Your task to perform on an android device: toggle sleep mode Image 0: 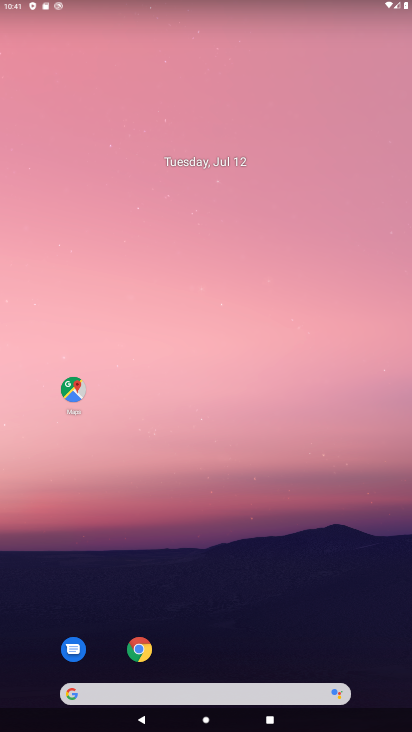
Step 0: drag from (282, 633) to (194, 56)
Your task to perform on an android device: toggle sleep mode Image 1: 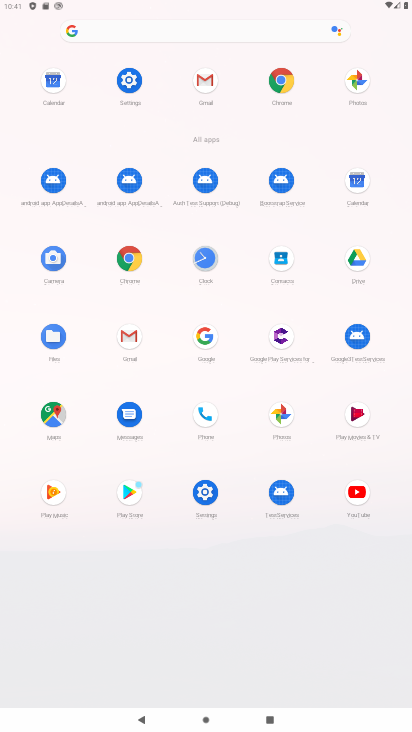
Step 1: click (126, 79)
Your task to perform on an android device: toggle sleep mode Image 2: 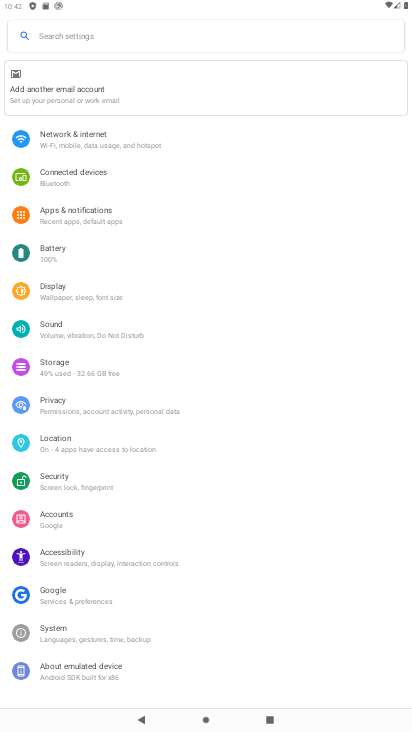
Step 2: click (80, 298)
Your task to perform on an android device: toggle sleep mode Image 3: 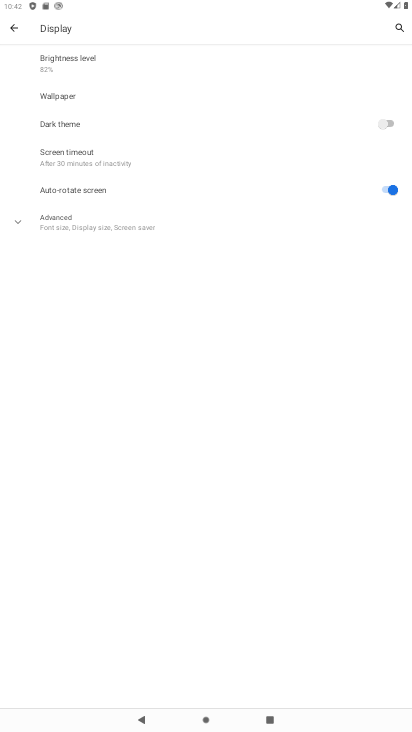
Step 3: click (253, 217)
Your task to perform on an android device: toggle sleep mode Image 4: 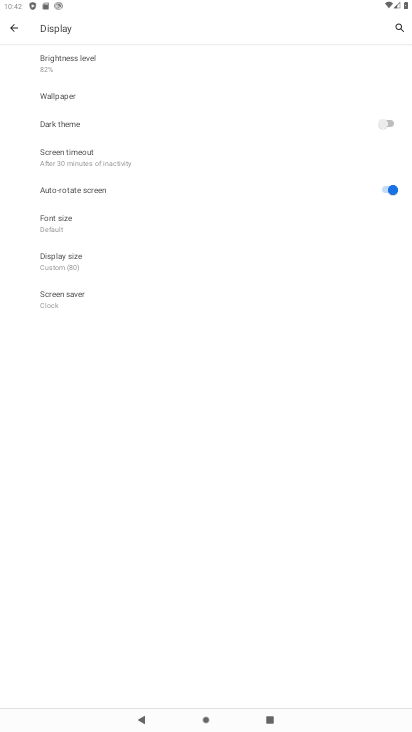
Step 4: task complete